Your task to perform on an android device: turn on translation in the chrome app Image 0: 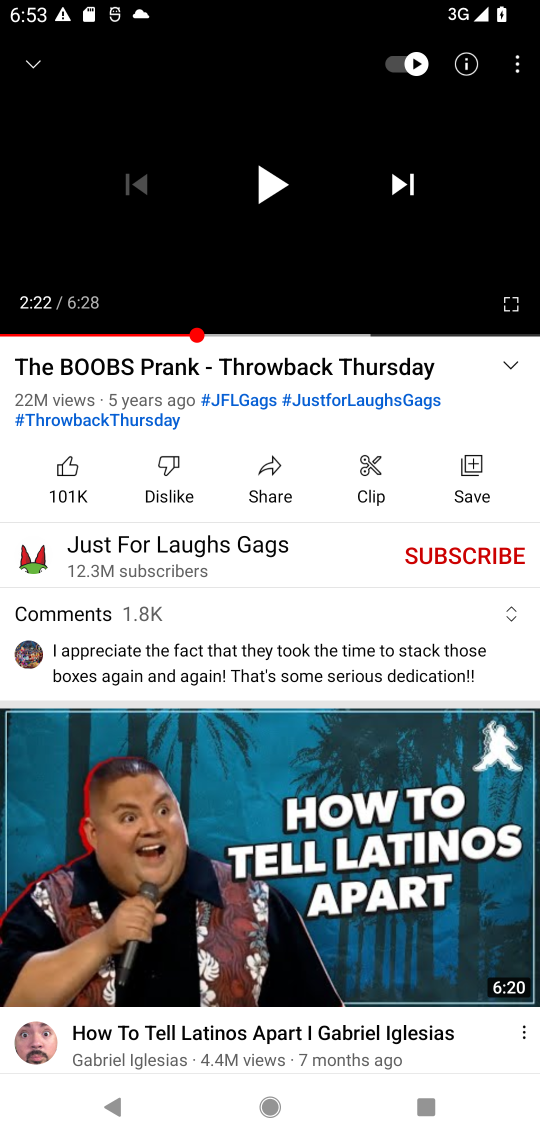
Step 0: press home button
Your task to perform on an android device: turn on translation in the chrome app Image 1: 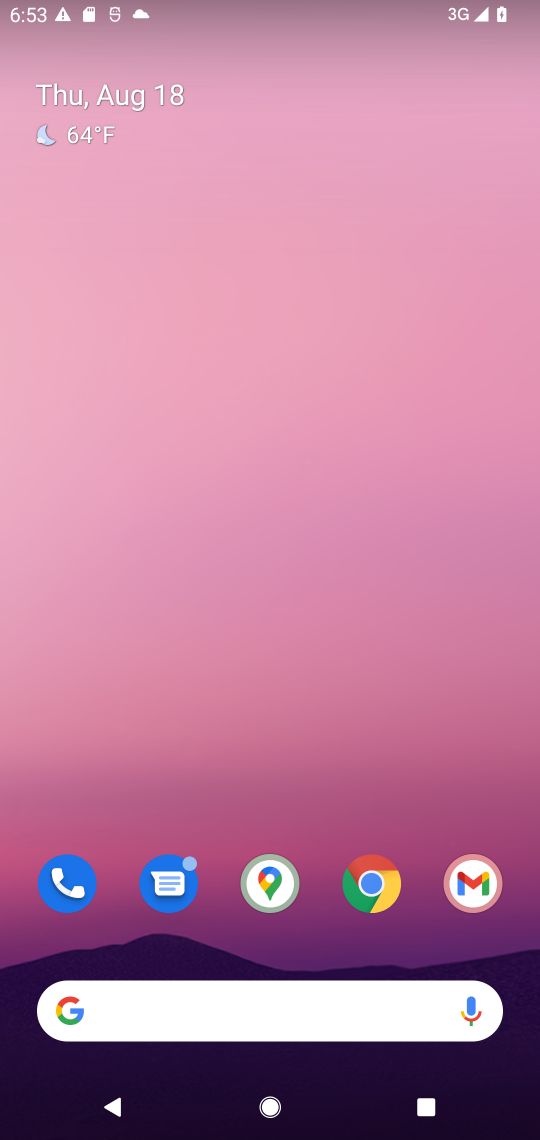
Step 1: click (372, 892)
Your task to perform on an android device: turn on translation in the chrome app Image 2: 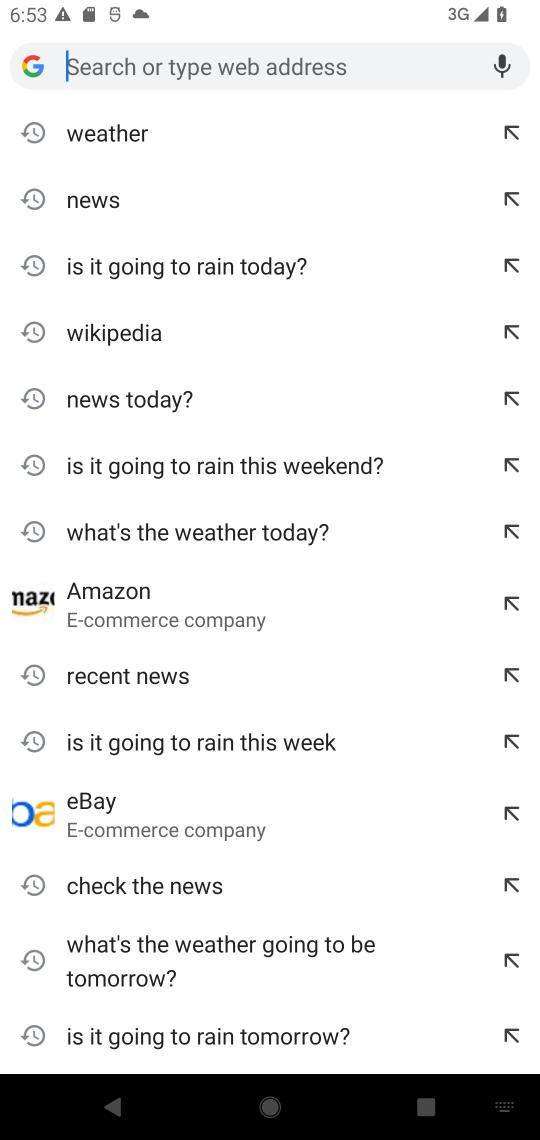
Step 2: click (26, 68)
Your task to perform on an android device: turn on translation in the chrome app Image 3: 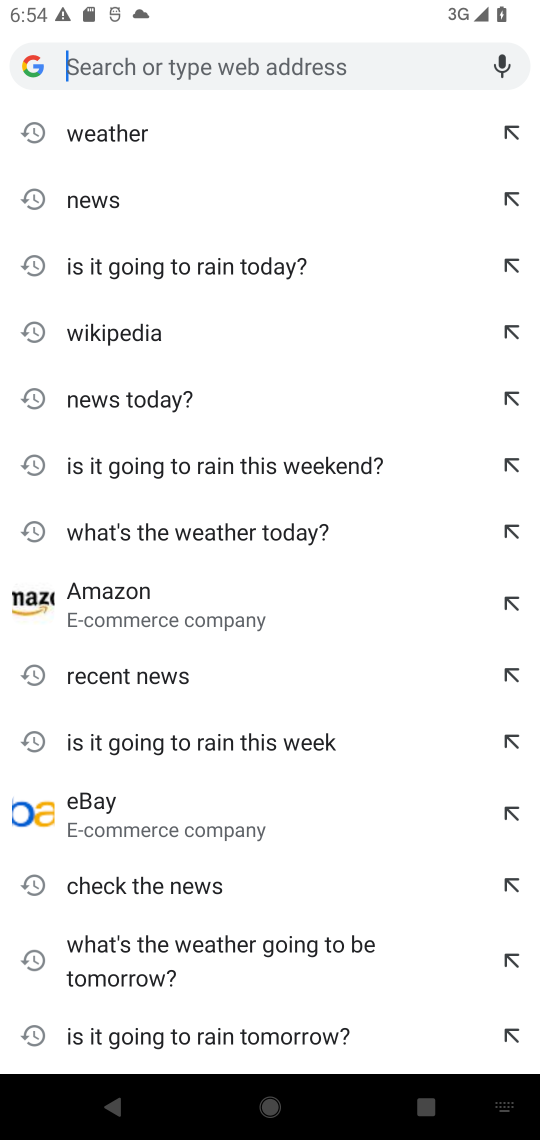
Step 3: click (26, 68)
Your task to perform on an android device: turn on translation in the chrome app Image 4: 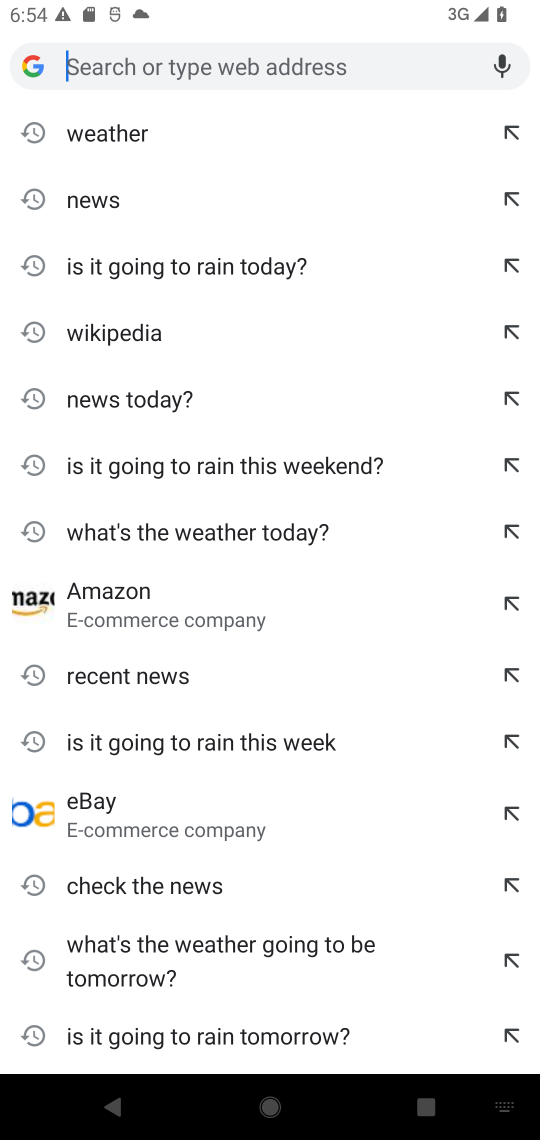
Step 4: click (26, 68)
Your task to perform on an android device: turn on translation in the chrome app Image 5: 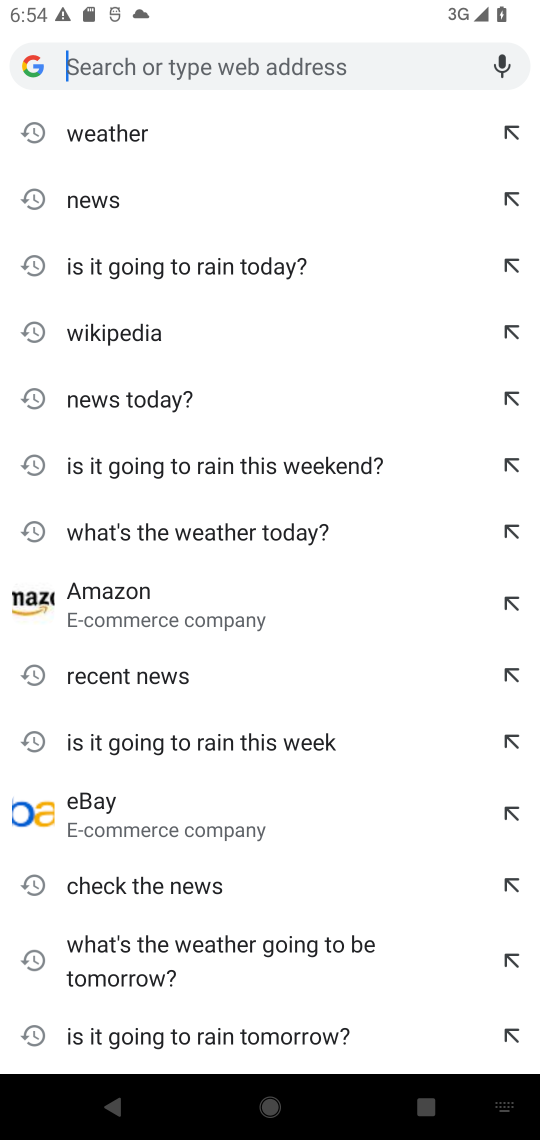
Step 5: click (20, 25)
Your task to perform on an android device: turn on translation in the chrome app Image 6: 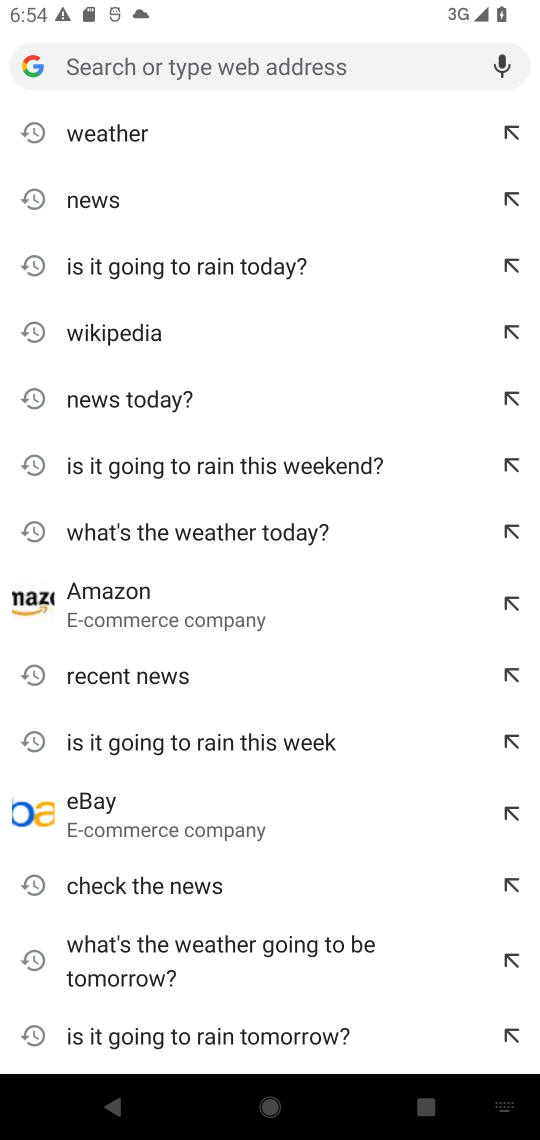
Step 6: click (20, 25)
Your task to perform on an android device: turn on translation in the chrome app Image 7: 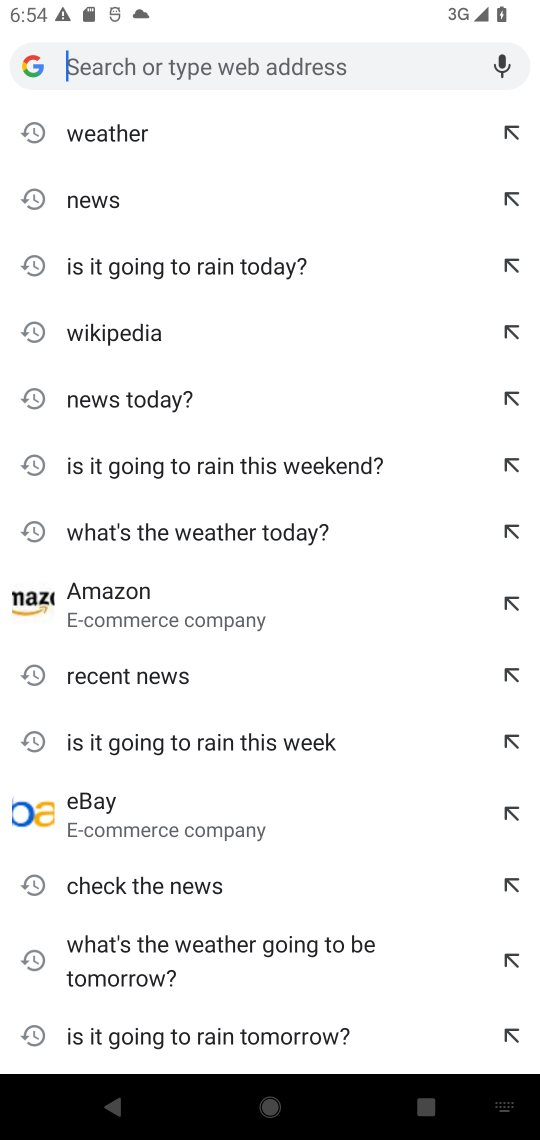
Step 7: click (20, 25)
Your task to perform on an android device: turn on translation in the chrome app Image 8: 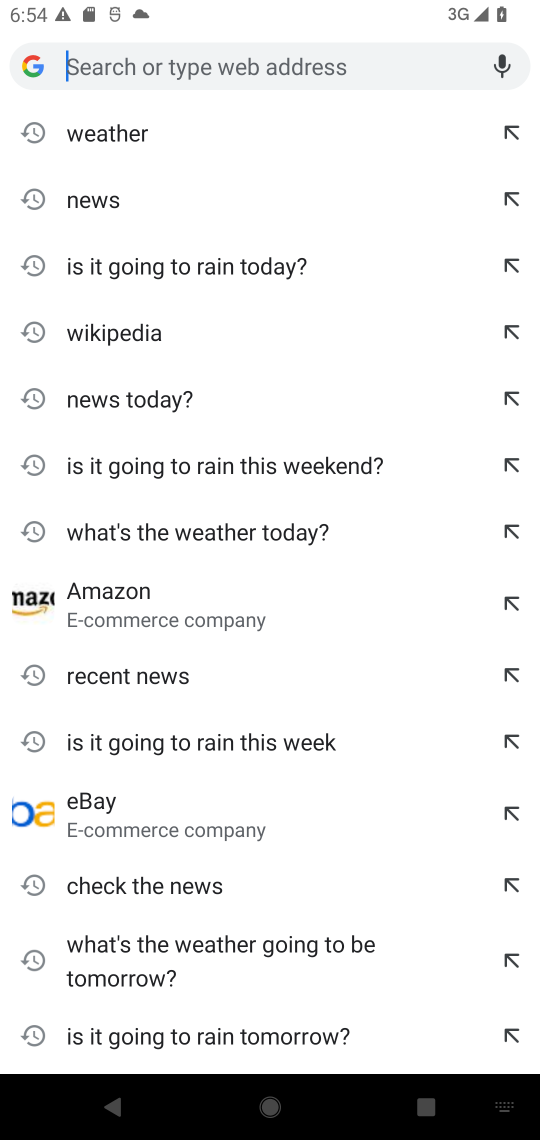
Step 8: click (20, 25)
Your task to perform on an android device: turn on translation in the chrome app Image 9: 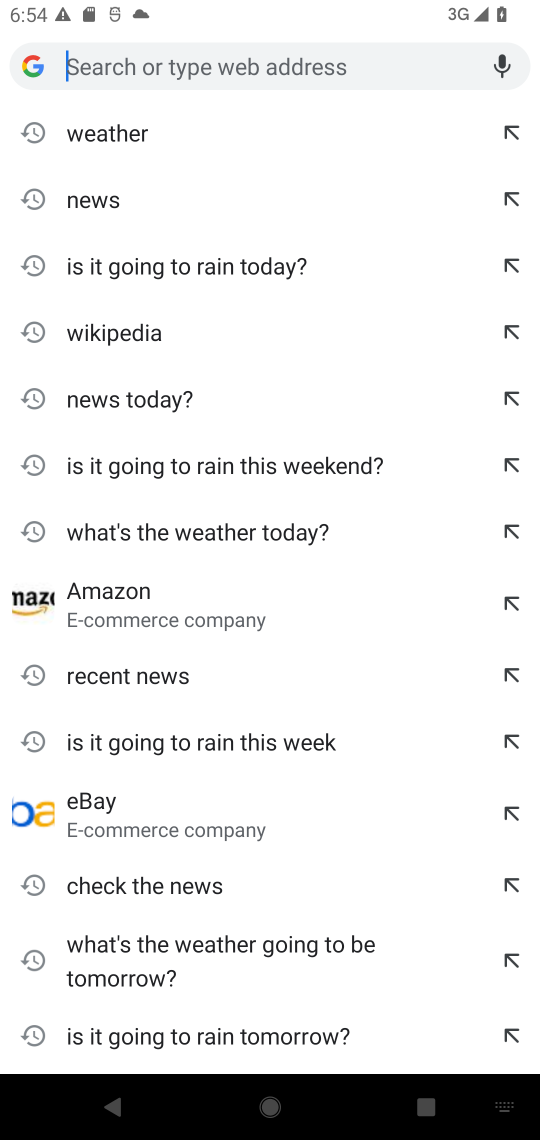
Step 9: click (153, 76)
Your task to perform on an android device: turn on translation in the chrome app Image 10: 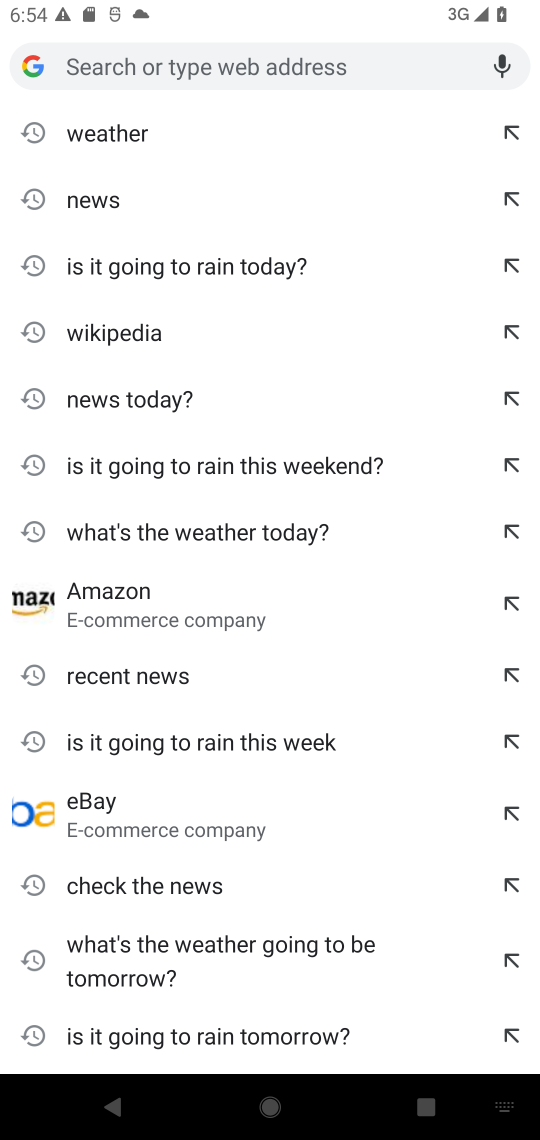
Step 10: click (153, 76)
Your task to perform on an android device: turn on translation in the chrome app Image 11: 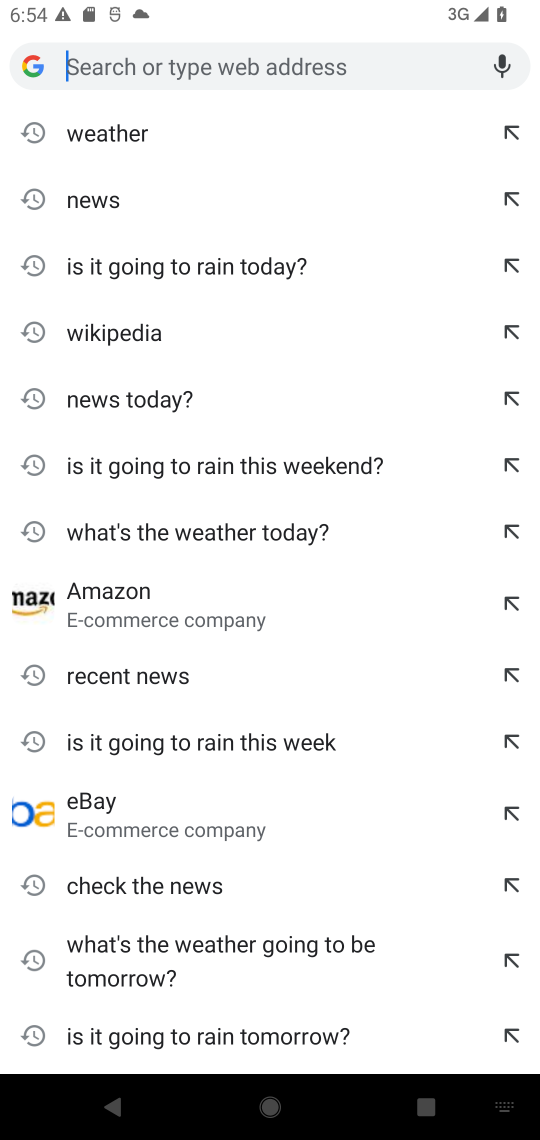
Step 11: click (153, 76)
Your task to perform on an android device: turn on translation in the chrome app Image 12: 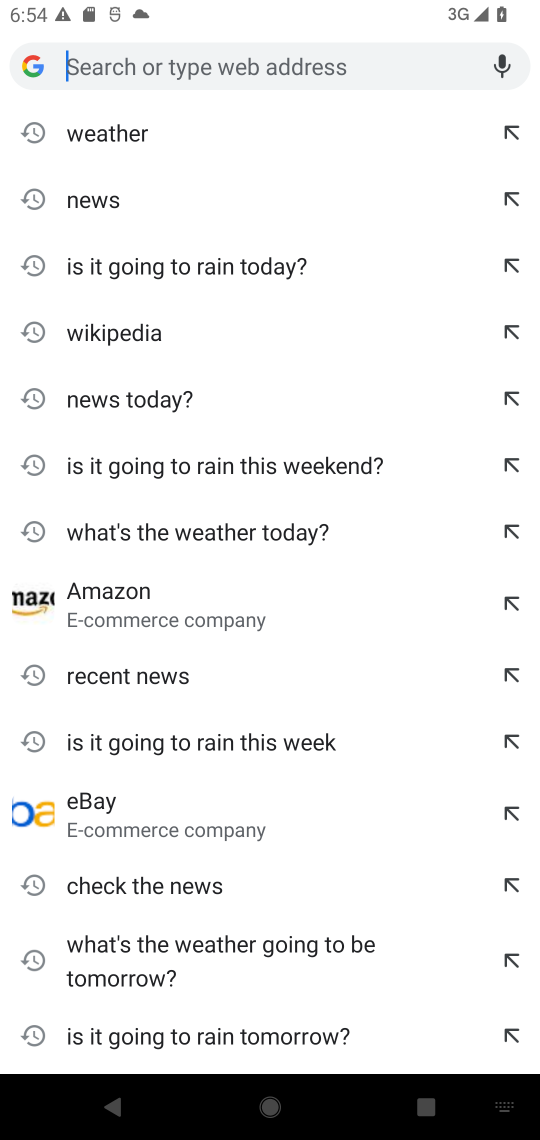
Step 12: click (153, 76)
Your task to perform on an android device: turn on translation in the chrome app Image 13: 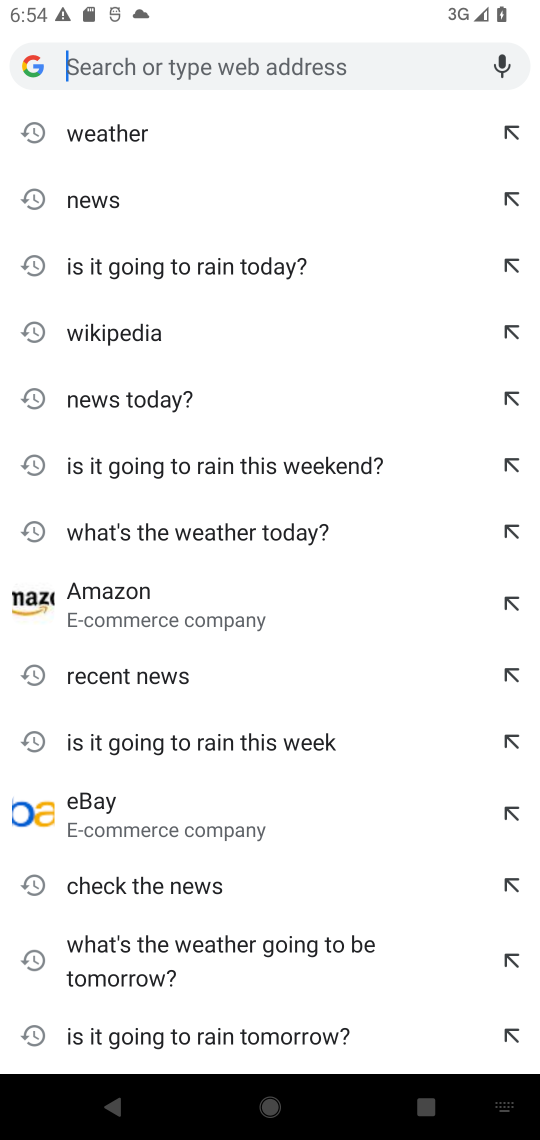
Step 13: task complete